Your task to perform on an android device: What's on my calendar today? Image 0: 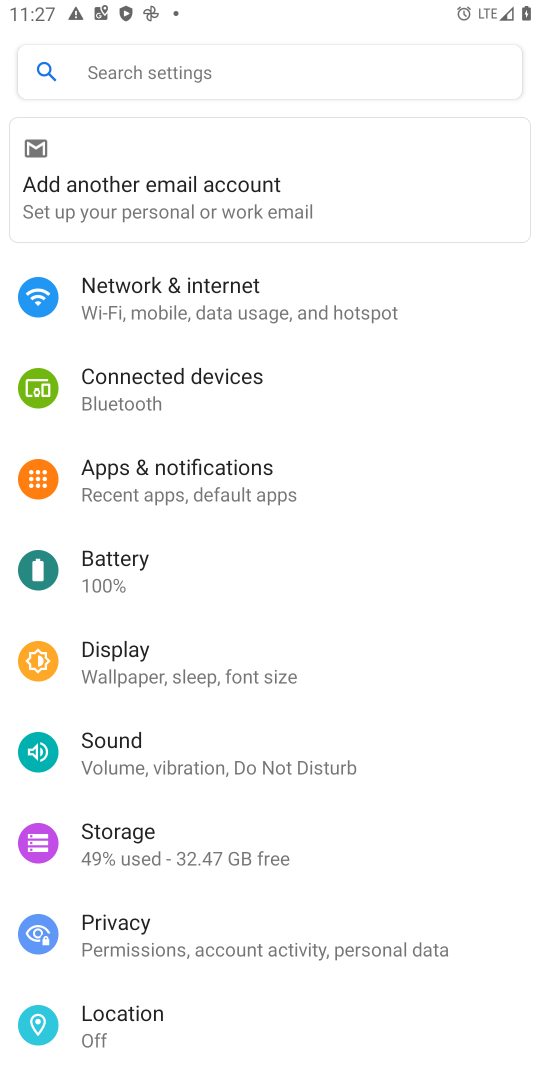
Step 0: click (79, 697)
Your task to perform on an android device: What's on my calendar today? Image 1: 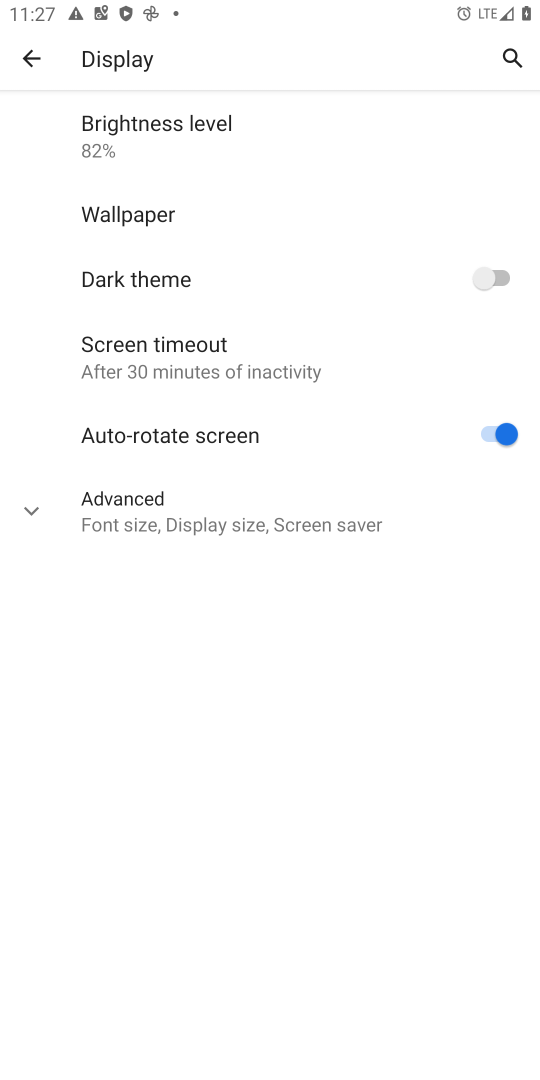
Step 1: press back button
Your task to perform on an android device: What's on my calendar today? Image 2: 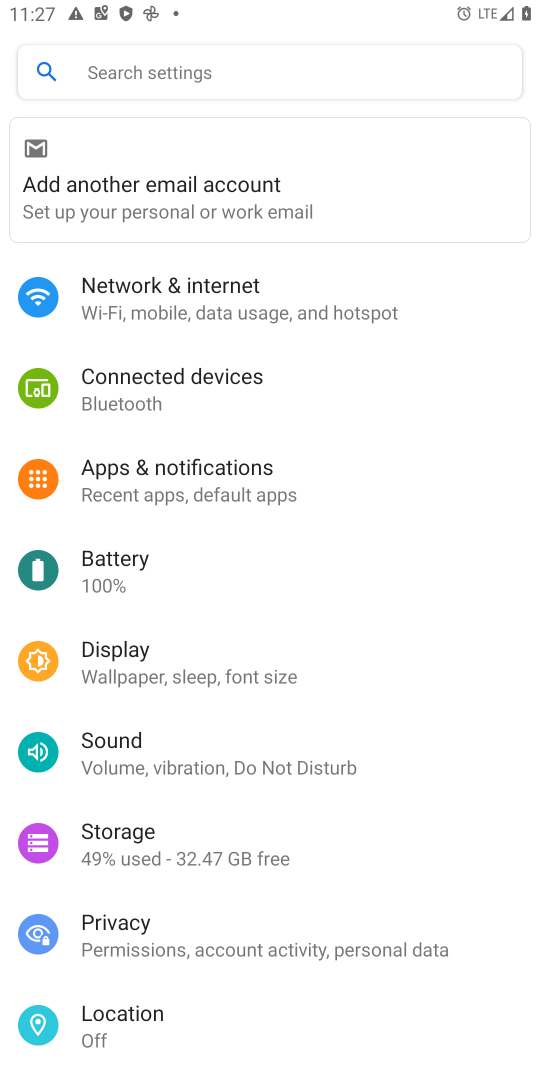
Step 2: press home button
Your task to perform on an android device: What's on my calendar today? Image 3: 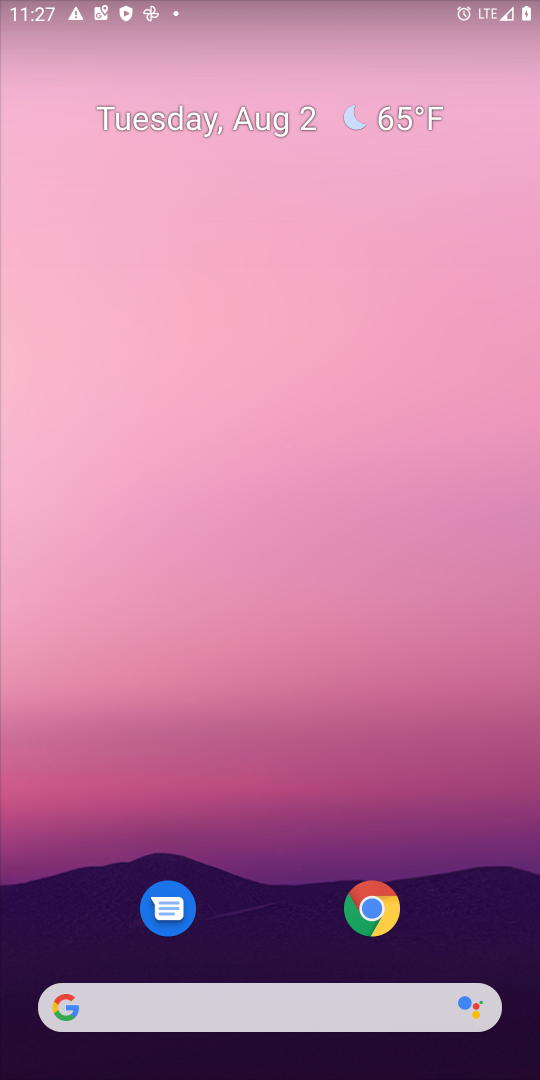
Step 3: drag from (291, 812) to (271, 95)
Your task to perform on an android device: What's on my calendar today? Image 4: 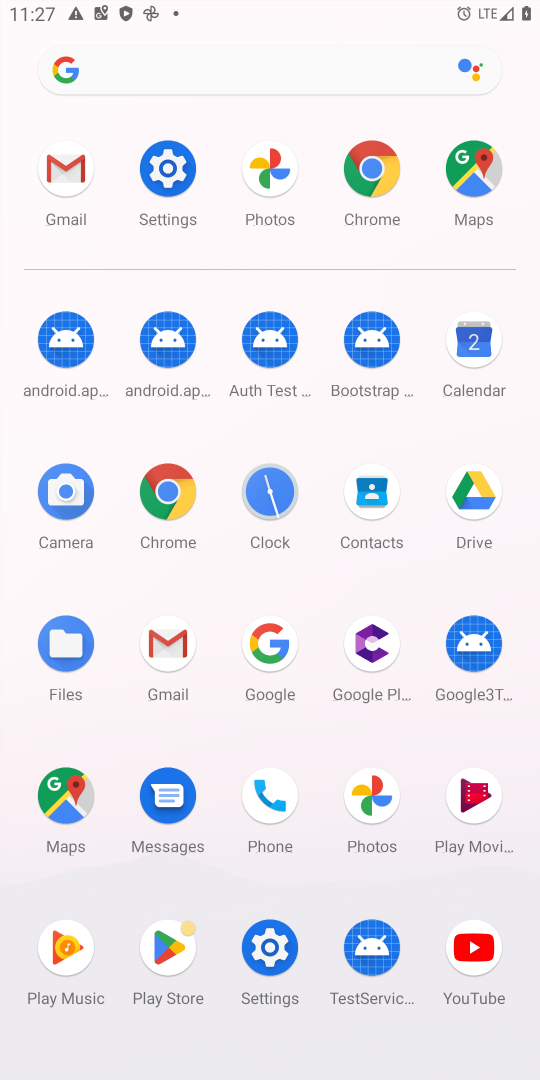
Step 4: click (464, 371)
Your task to perform on an android device: What's on my calendar today? Image 5: 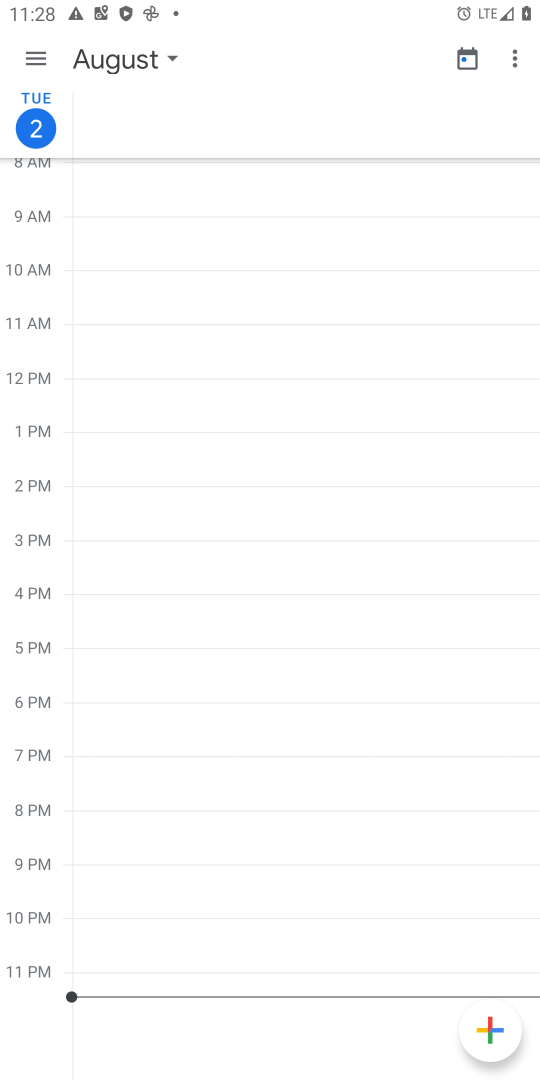
Step 5: task complete